Your task to perform on an android device: Go to display settings Image 0: 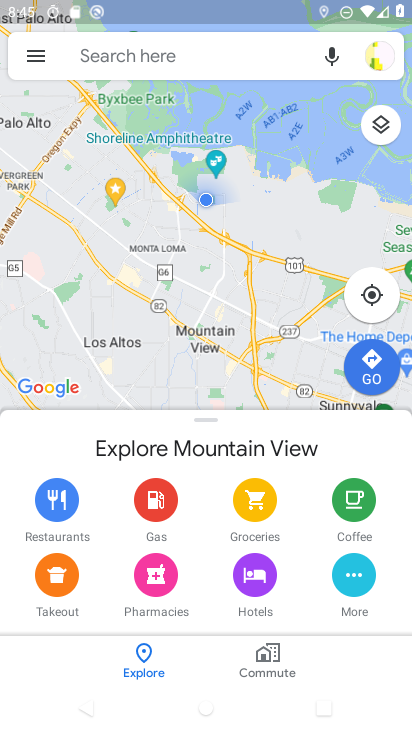
Step 0: press home button
Your task to perform on an android device: Go to display settings Image 1: 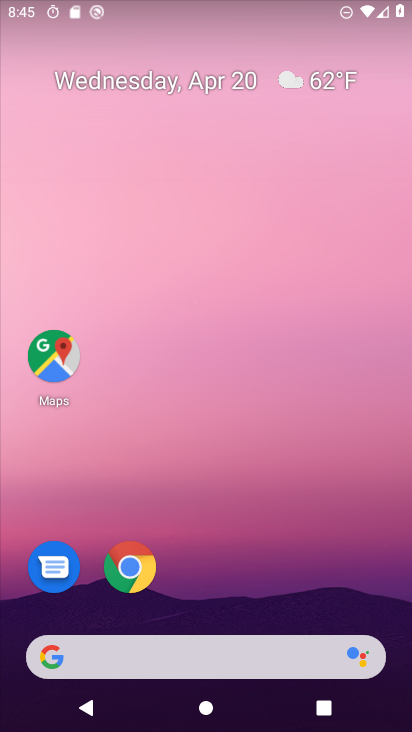
Step 1: drag from (282, 566) to (282, 17)
Your task to perform on an android device: Go to display settings Image 2: 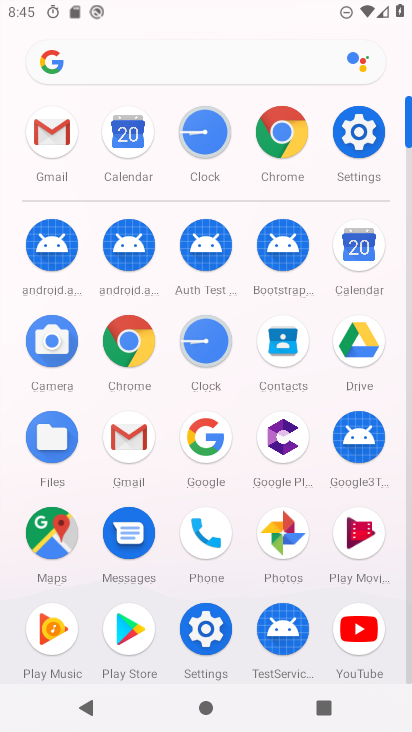
Step 2: click (361, 122)
Your task to perform on an android device: Go to display settings Image 3: 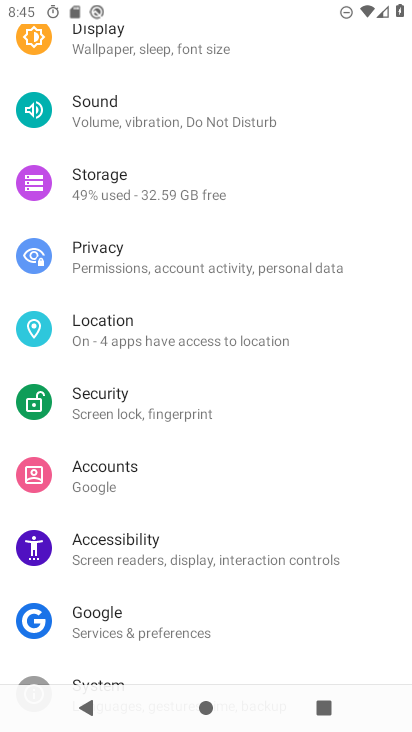
Step 3: click (123, 42)
Your task to perform on an android device: Go to display settings Image 4: 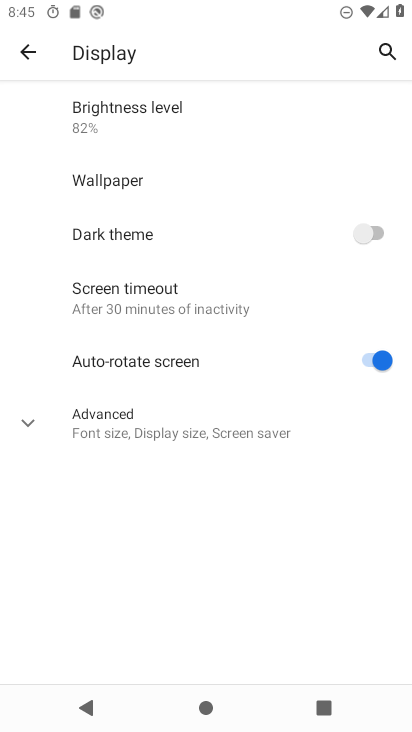
Step 4: click (31, 423)
Your task to perform on an android device: Go to display settings Image 5: 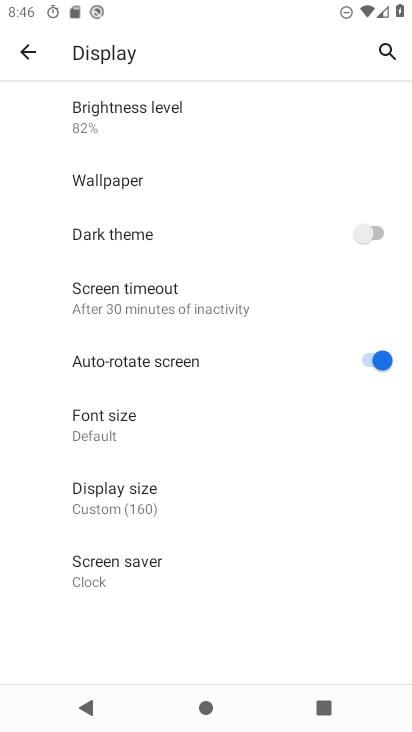
Step 5: task complete